Your task to perform on an android device: Open ESPN.com Image 0: 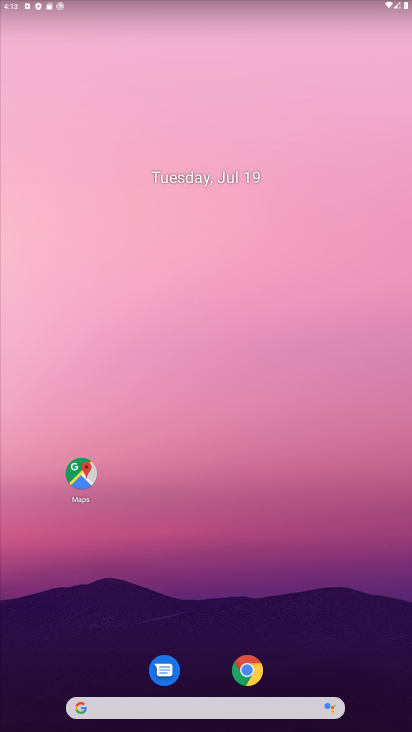
Step 0: drag from (195, 711) to (358, 80)
Your task to perform on an android device: Open ESPN.com Image 1: 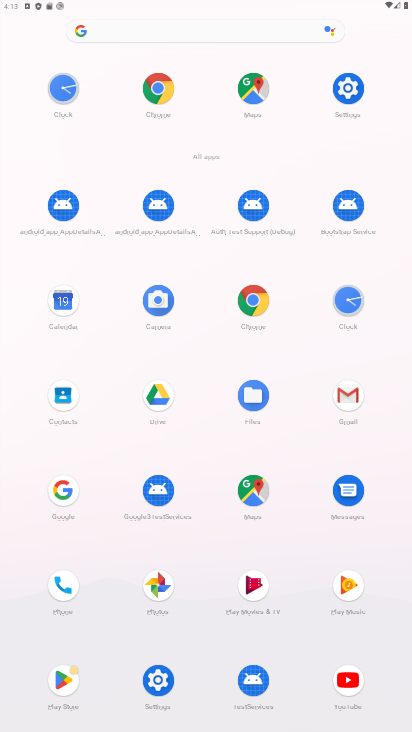
Step 1: click (251, 302)
Your task to perform on an android device: Open ESPN.com Image 2: 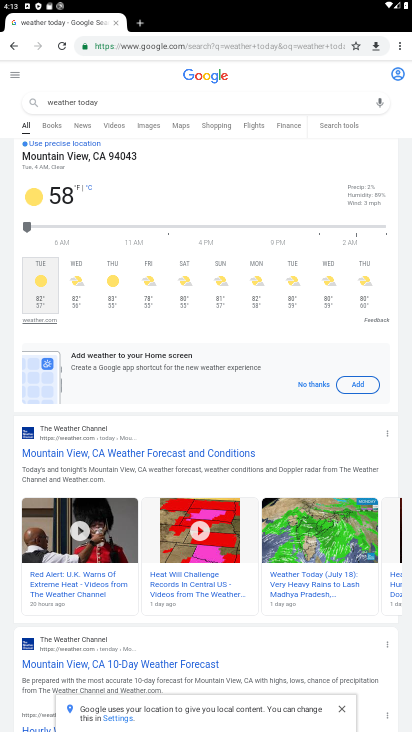
Step 2: click (227, 46)
Your task to perform on an android device: Open ESPN.com Image 3: 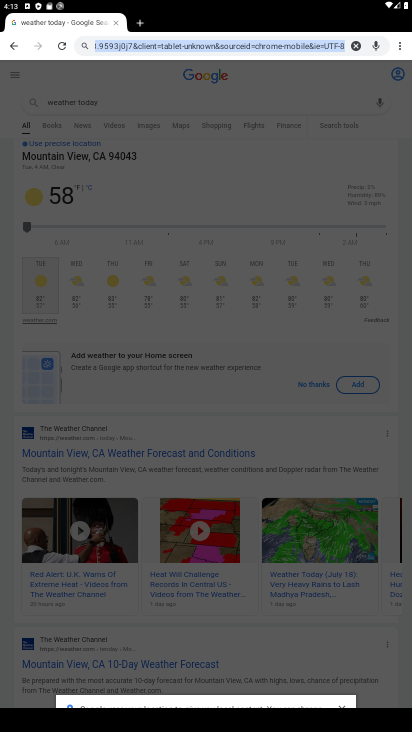
Step 3: type "espn.com"
Your task to perform on an android device: Open ESPN.com Image 4: 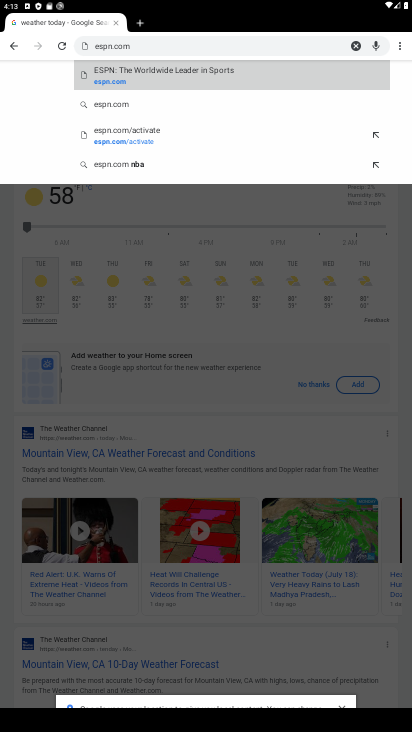
Step 4: click (155, 70)
Your task to perform on an android device: Open ESPN.com Image 5: 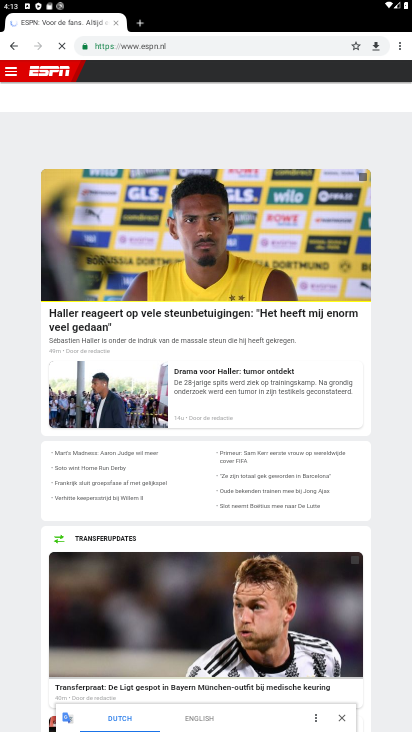
Step 5: task complete